Your task to perform on an android device: When is my next meeting? Image 0: 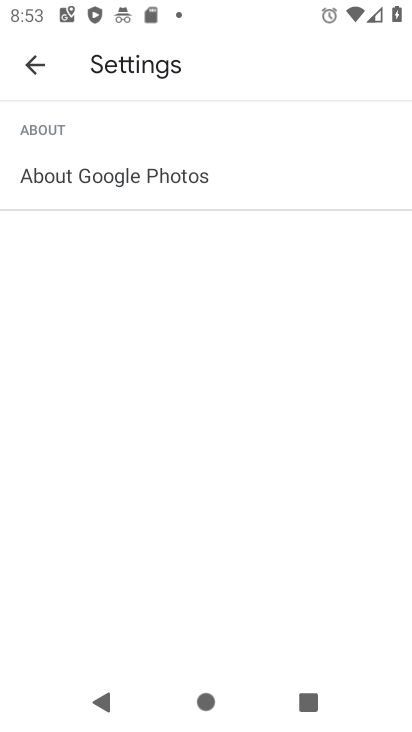
Step 0: press home button
Your task to perform on an android device: When is my next meeting? Image 1: 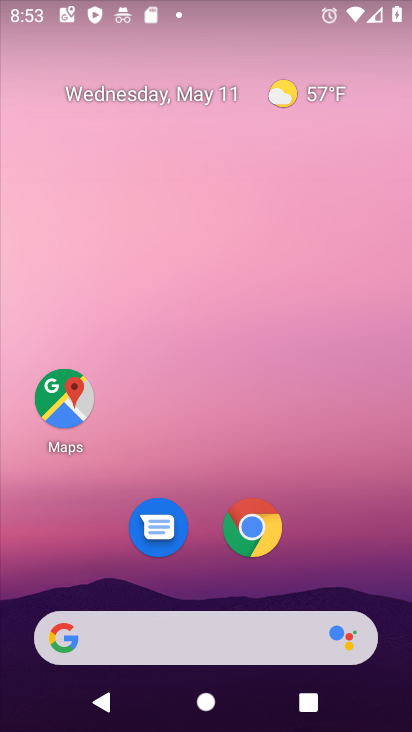
Step 1: drag from (334, 500) to (294, 2)
Your task to perform on an android device: When is my next meeting? Image 2: 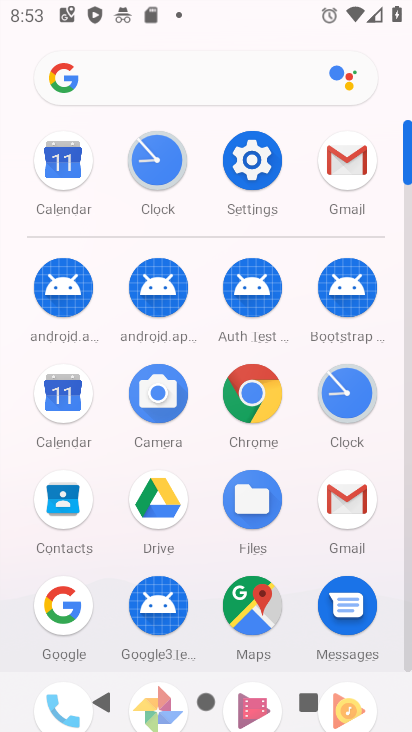
Step 2: click (65, 163)
Your task to perform on an android device: When is my next meeting? Image 3: 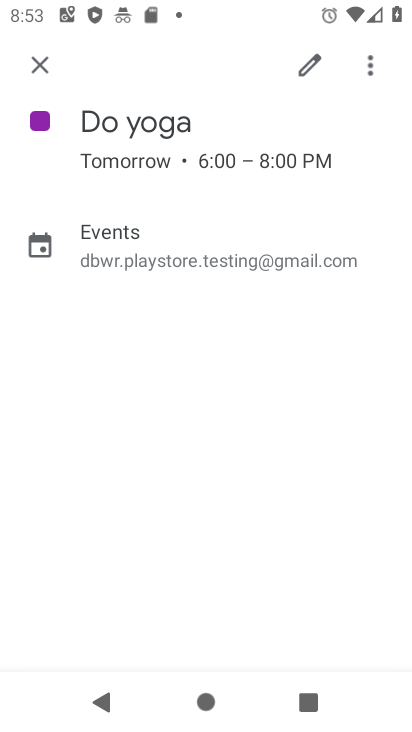
Step 3: click (47, 71)
Your task to perform on an android device: When is my next meeting? Image 4: 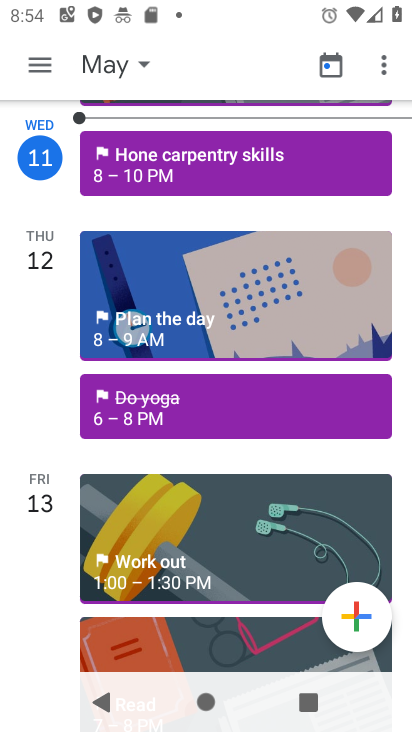
Step 4: click (156, 404)
Your task to perform on an android device: When is my next meeting? Image 5: 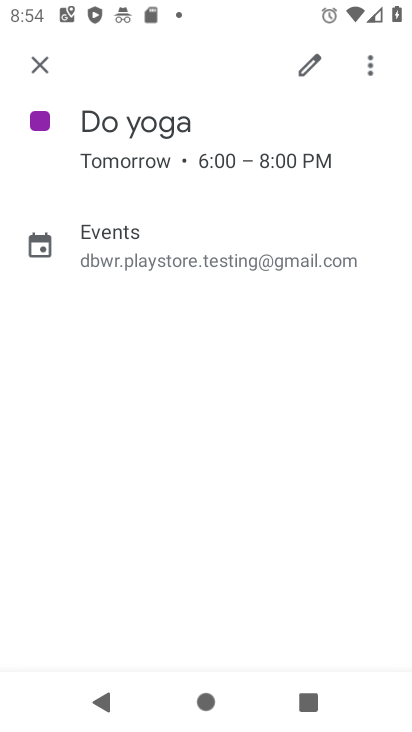
Step 5: task complete